Your task to perform on an android device: Open Amazon Image 0: 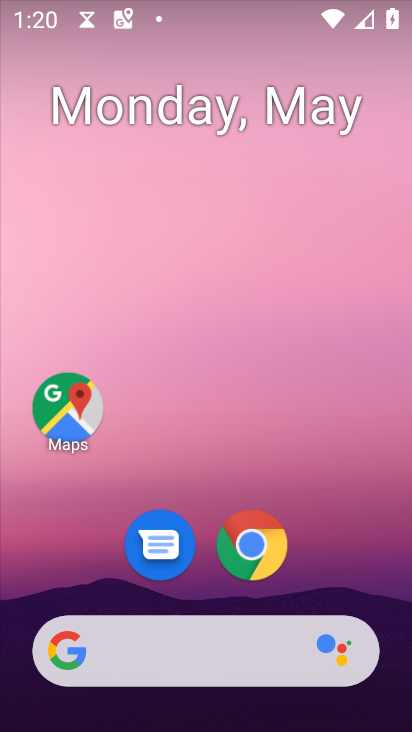
Step 0: click (267, 534)
Your task to perform on an android device: Open Amazon Image 1: 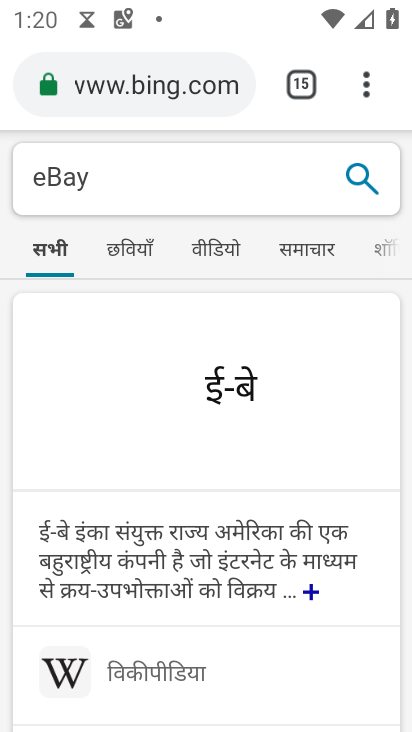
Step 1: click (360, 104)
Your task to perform on an android device: Open Amazon Image 2: 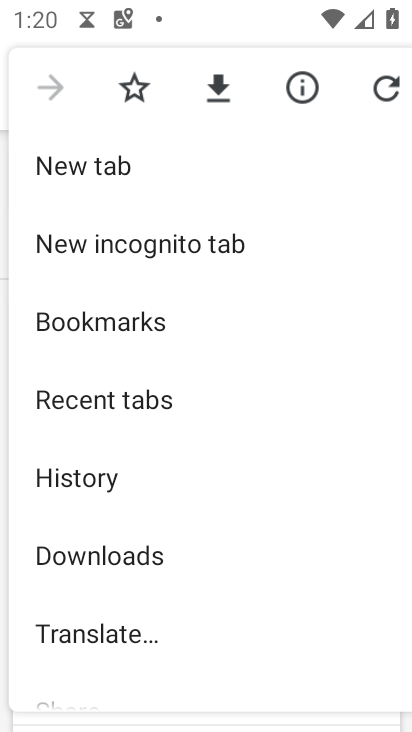
Step 2: click (159, 187)
Your task to perform on an android device: Open Amazon Image 3: 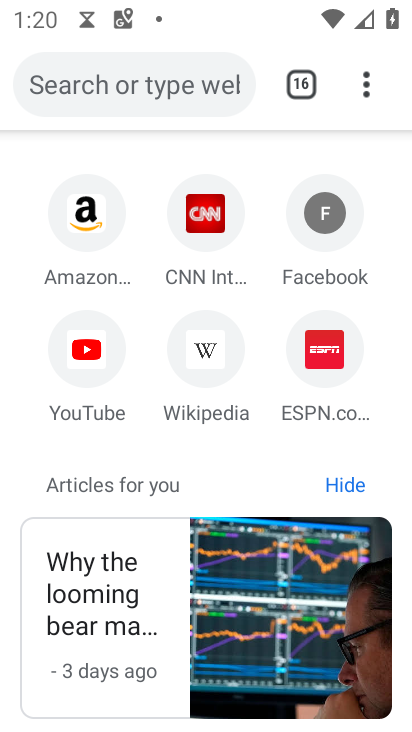
Step 3: click (102, 209)
Your task to perform on an android device: Open Amazon Image 4: 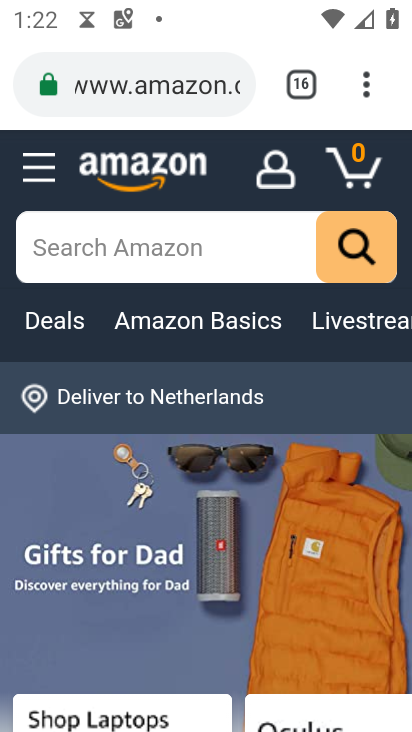
Step 4: task complete